Your task to perform on an android device: turn on translation in the chrome app Image 0: 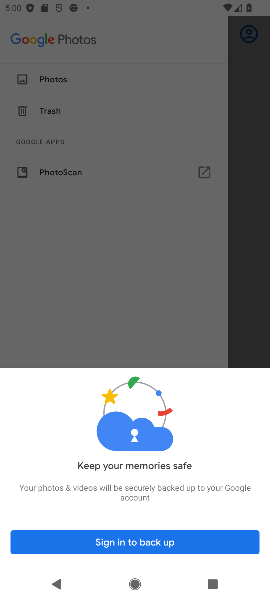
Step 0: press home button
Your task to perform on an android device: turn on translation in the chrome app Image 1: 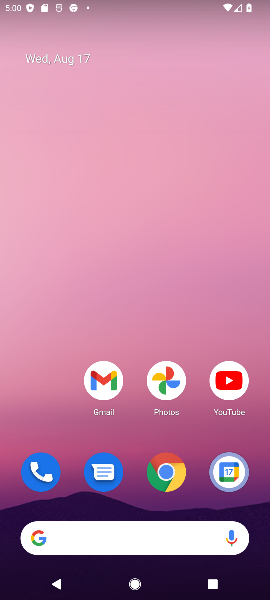
Step 1: click (158, 464)
Your task to perform on an android device: turn on translation in the chrome app Image 2: 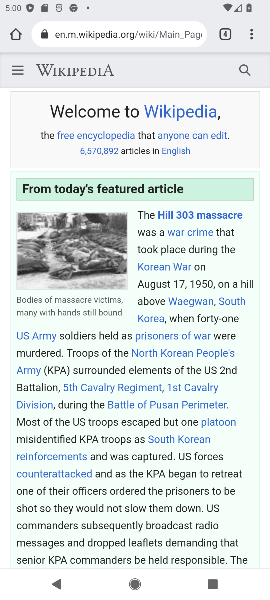
Step 2: click (251, 32)
Your task to perform on an android device: turn on translation in the chrome app Image 3: 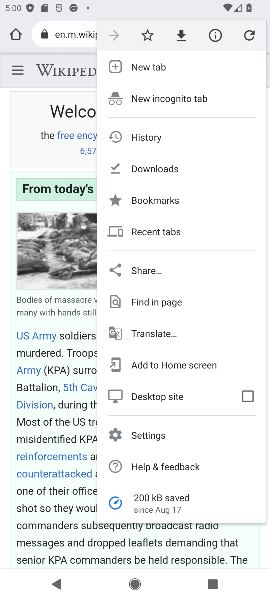
Step 3: click (155, 437)
Your task to perform on an android device: turn on translation in the chrome app Image 4: 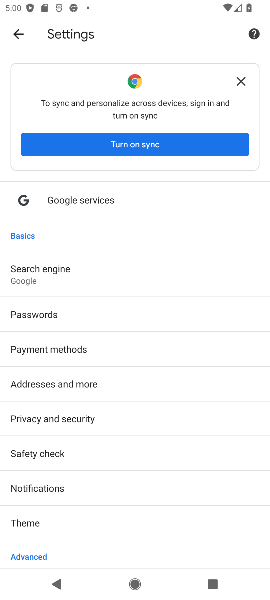
Step 4: drag from (128, 497) to (137, 207)
Your task to perform on an android device: turn on translation in the chrome app Image 5: 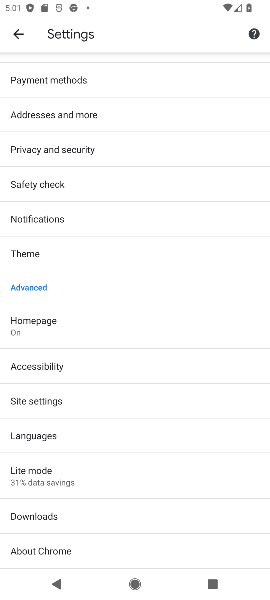
Step 5: click (51, 434)
Your task to perform on an android device: turn on translation in the chrome app Image 6: 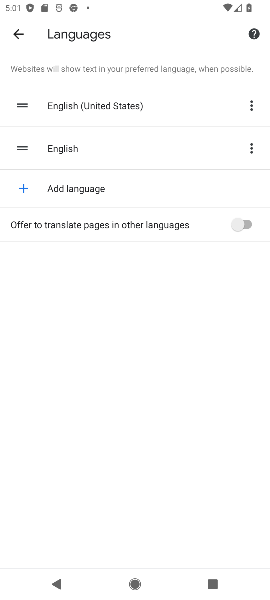
Step 6: click (256, 224)
Your task to perform on an android device: turn on translation in the chrome app Image 7: 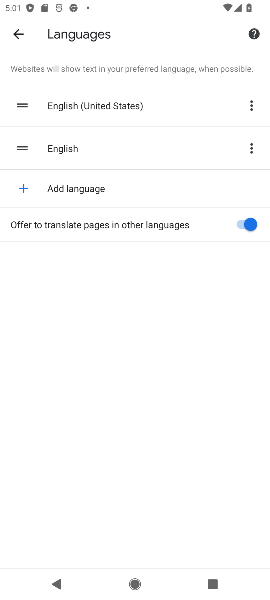
Step 7: task complete